Your task to perform on an android device: open app "DuckDuckGo Privacy Browser" (install if not already installed), go to login, and select forgot password Image 0: 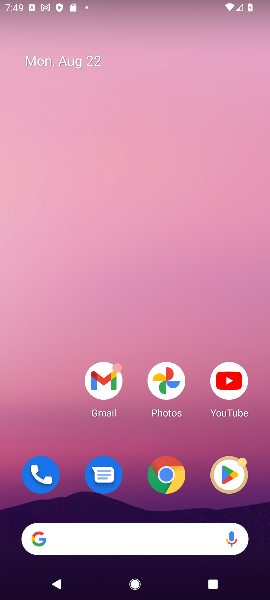
Step 0: click (230, 476)
Your task to perform on an android device: open app "DuckDuckGo Privacy Browser" (install if not already installed), go to login, and select forgot password Image 1: 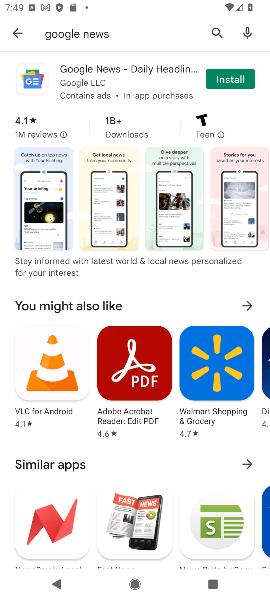
Step 1: click (107, 33)
Your task to perform on an android device: open app "DuckDuckGo Privacy Browser" (install if not already installed), go to login, and select forgot password Image 2: 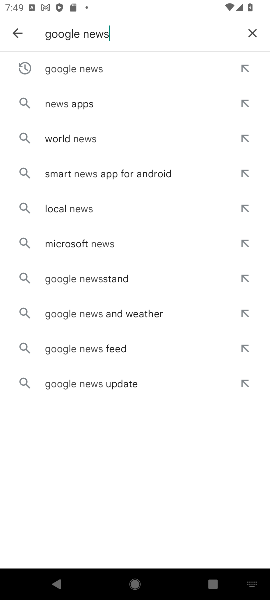
Step 2: click (250, 28)
Your task to perform on an android device: open app "DuckDuckGo Privacy Browser" (install if not already installed), go to login, and select forgot password Image 3: 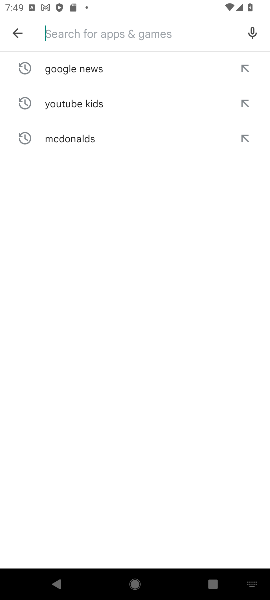
Step 3: type "duckduckgo"
Your task to perform on an android device: open app "DuckDuckGo Privacy Browser" (install if not already installed), go to login, and select forgot password Image 4: 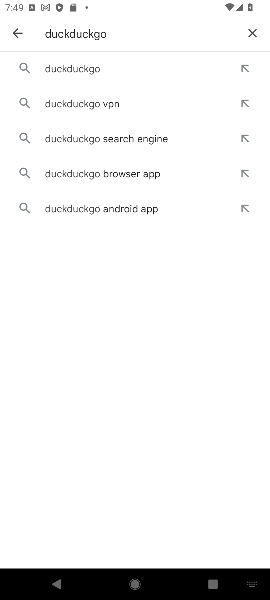
Step 4: click (81, 75)
Your task to perform on an android device: open app "DuckDuckGo Privacy Browser" (install if not already installed), go to login, and select forgot password Image 5: 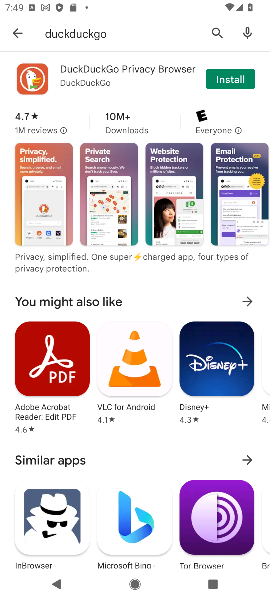
Step 5: click (233, 77)
Your task to perform on an android device: open app "DuckDuckGo Privacy Browser" (install if not already installed), go to login, and select forgot password Image 6: 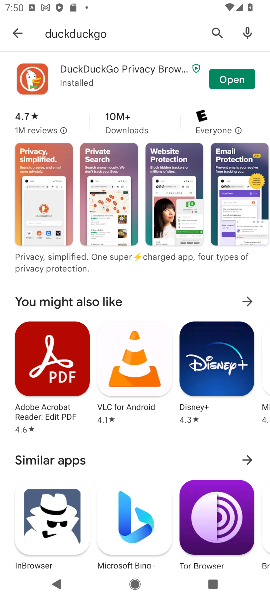
Step 6: click (238, 81)
Your task to perform on an android device: open app "DuckDuckGo Privacy Browser" (install if not already installed), go to login, and select forgot password Image 7: 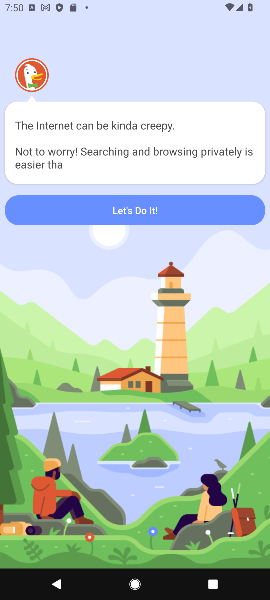
Step 7: click (163, 217)
Your task to perform on an android device: open app "DuckDuckGo Privacy Browser" (install if not already installed), go to login, and select forgot password Image 8: 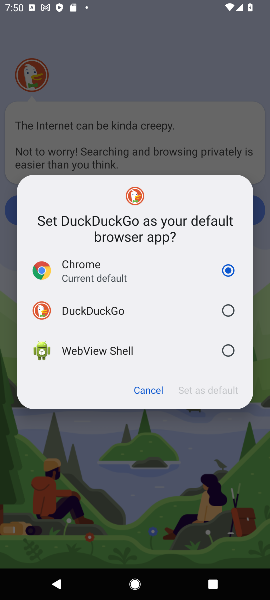
Step 8: click (136, 316)
Your task to perform on an android device: open app "DuckDuckGo Privacy Browser" (install if not already installed), go to login, and select forgot password Image 9: 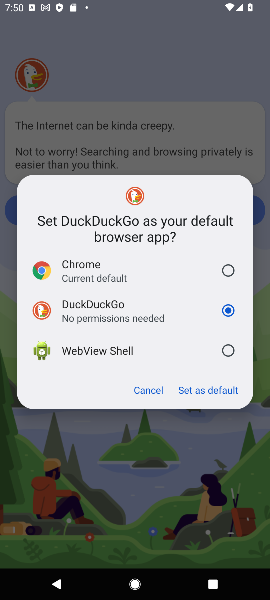
Step 9: click (209, 387)
Your task to perform on an android device: open app "DuckDuckGo Privacy Browser" (install if not already installed), go to login, and select forgot password Image 10: 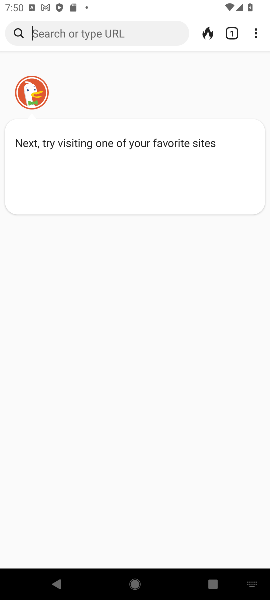
Step 10: click (256, 28)
Your task to perform on an android device: open app "DuckDuckGo Privacy Browser" (install if not already installed), go to login, and select forgot password Image 11: 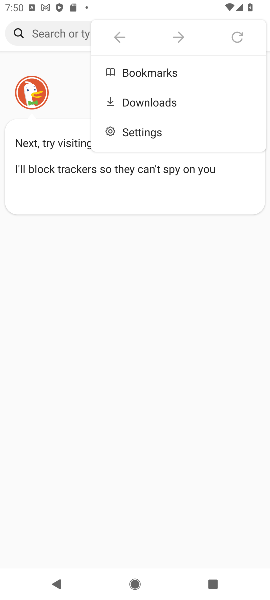
Step 11: click (155, 130)
Your task to perform on an android device: open app "DuckDuckGo Privacy Browser" (install if not already installed), go to login, and select forgot password Image 12: 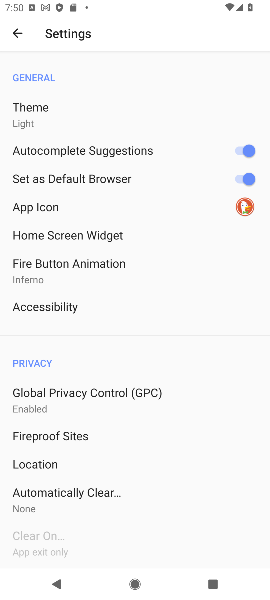
Step 12: drag from (71, 489) to (126, 5)
Your task to perform on an android device: open app "DuckDuckGo Privacy Browser" (install if not already installed), go to login, and select forgot password Image 13: 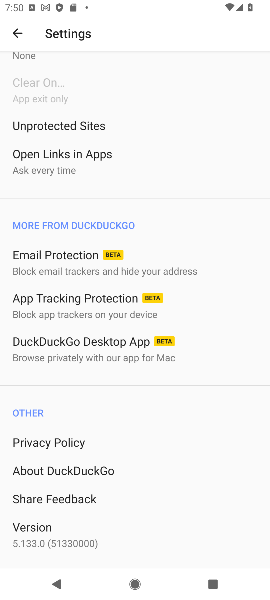
Step 13: drag from (72, 510) to (90, 365)
Your task to perform on an android device: open app "DuckDuckGo Privacy Browser" (install if not already installed), go to login, and select forgot password Image 14: 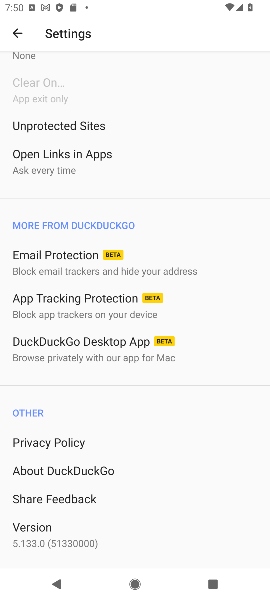
Step 14: drag from (156, 395) to (131, 590)
Your task to perform on an android device: open app "DuckDuckGo Privacy Browser" (install if not already installed), go to login, and select forgot password Image 15: 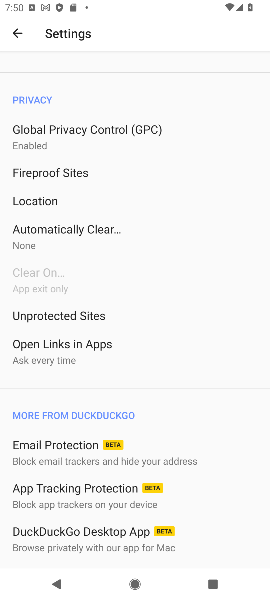
Step 15: drag from (122, 294) to (106, 595)
Your task to perform on an android device: open app "DuckDuckGo Privacy Browser" (install if not already installed), go to login, and select forgot password Image 16: 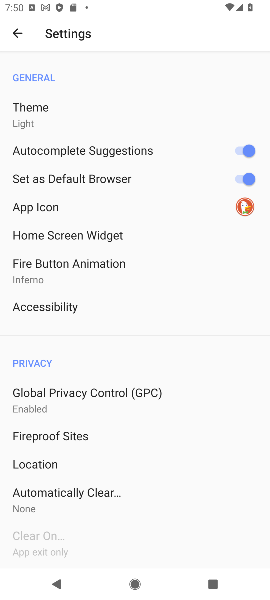
Step 16: drag from (91, 290) to (89, 547)
Your task to perform on an android device: open app "DuckDuckGo Privacy Browser" (install if not already installed), go to login, and select forgot password Image 17: 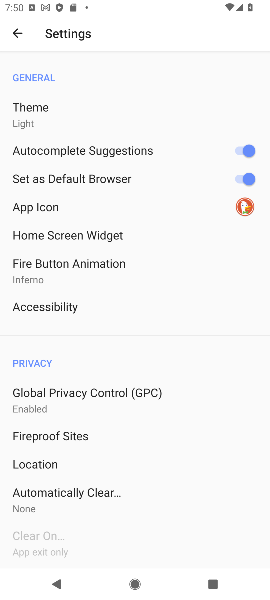
Step 17: click (18, 38)
Your task to perform on an android device: open app "DuckDuckGo Privacy Browser" (install if not already installed), go to login, and select forgot password Image 18: 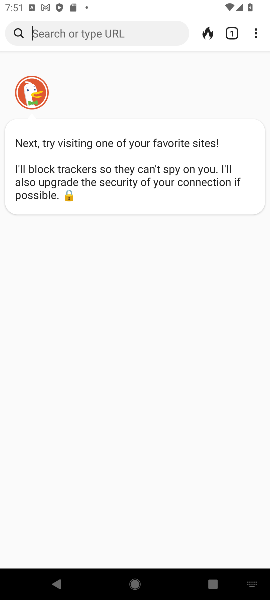
Step 18: task complete